Your task to perform on an android device: What is the recent news? Image 0: 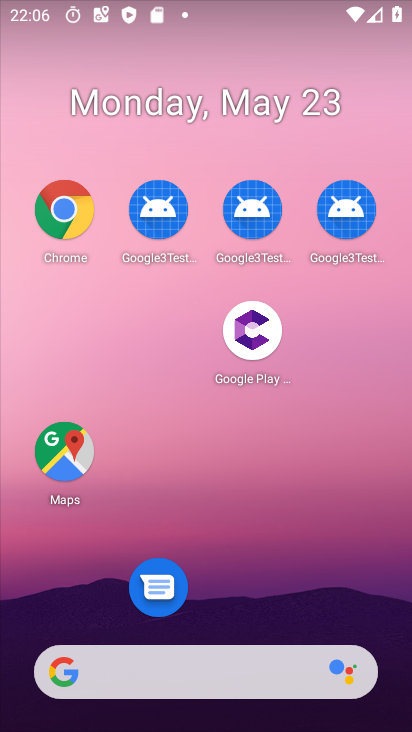
Step 0: click (191, 683)
Your task to perform on an android device: What is the recent news? Image 1: 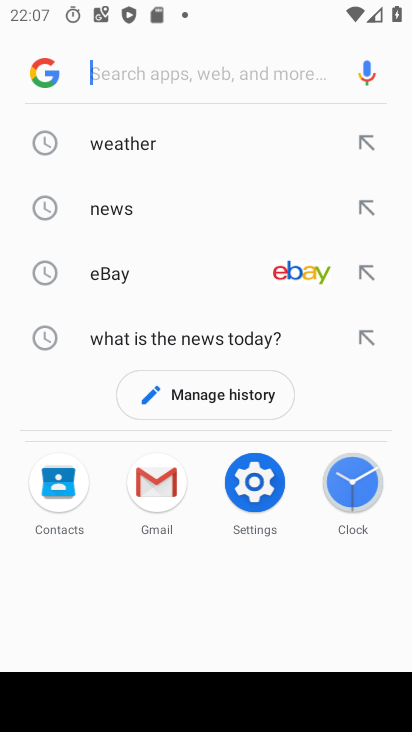
Step 1: type "recent news"
Your task to perform on an android device: What is the recent news? Image 2: 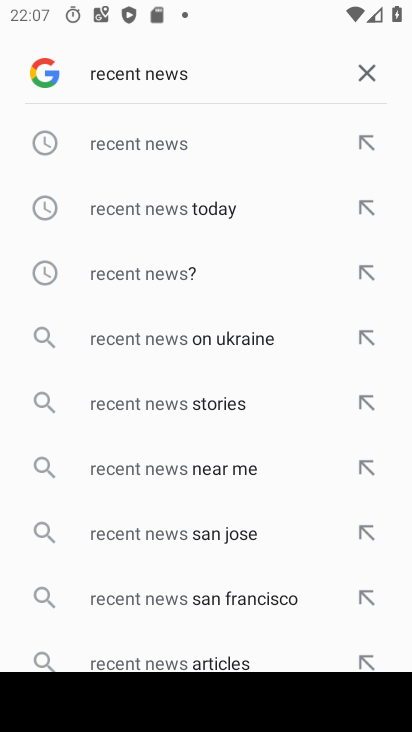
Step 2: click (141, 150)
Your task to perform on an android device: What is the recent news? Image 3: 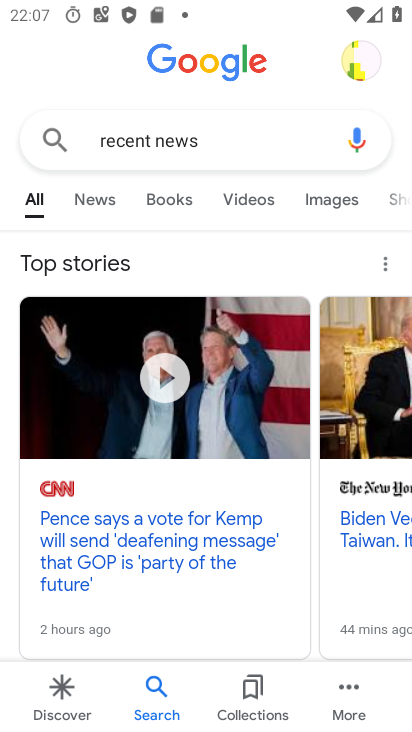
Step 3: click (101, 197)
Your task to perform on an android device: What is the recent news? Image 4: 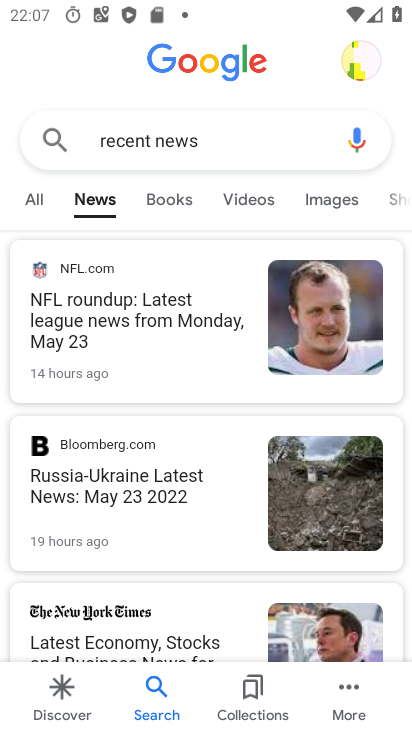
Step 4: task complete